Your task to perform on an android device: Open Amazon Image 0: 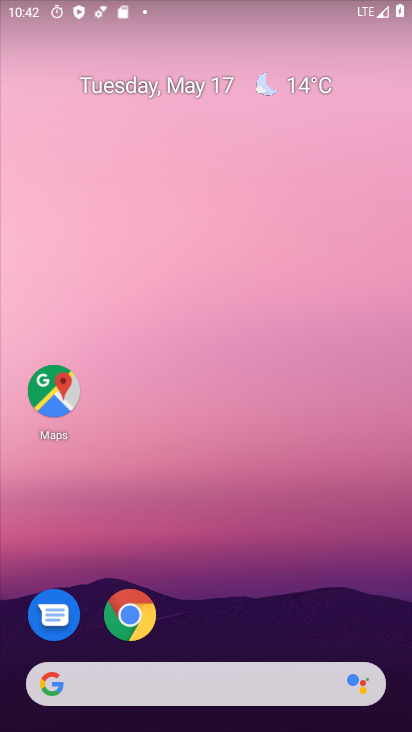
Step 0: click (134, 606)
Your task to perform on an android device: Open Amazon Image 1: 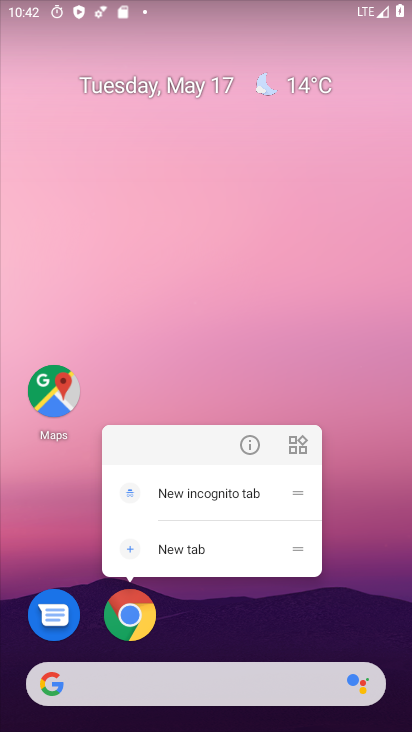
Step 1: click (134, 607)
Your task to perform on an android device: Open Amazon Image 2: 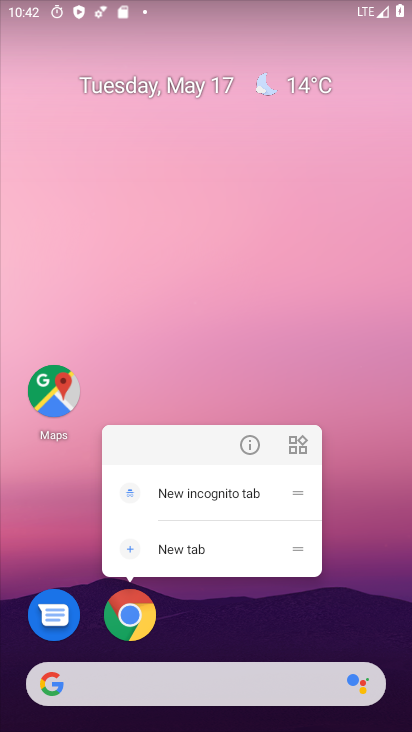
Step 2: click (123, 628)
Your task to perform on an android device: Open Amazon Image 3: 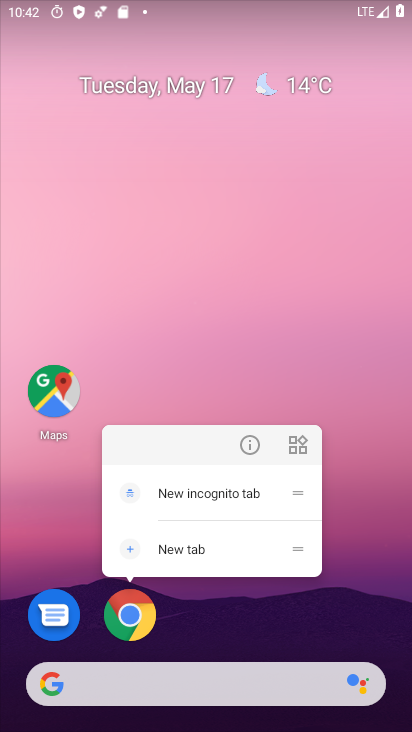
Step 3: click (147, 630)
Your task to perform on an android device: Open Amazon Image 4: 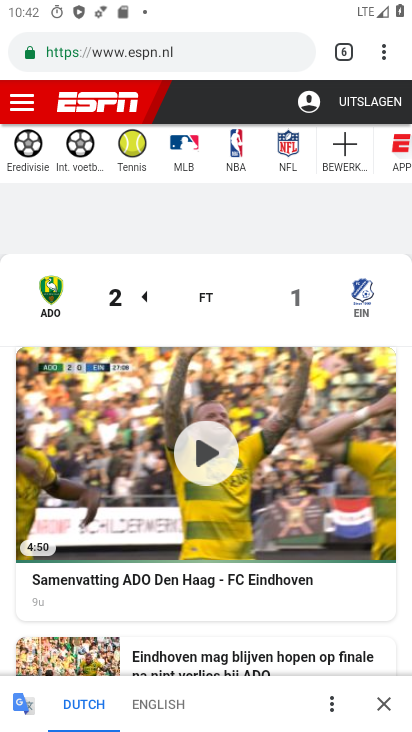
Step 4: drag from (384, 52) to (293, 110)
Your task to perform on an android device: Open Amazon Image 5: 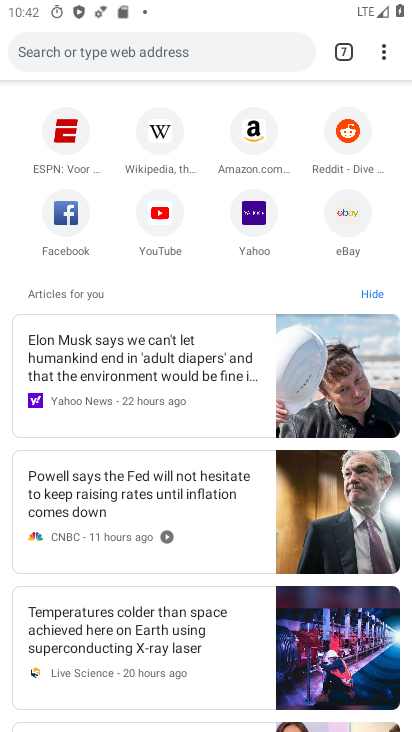
Step 5: click (250, 132)
Your task to perform on an android device: Open Amazon Image 6: 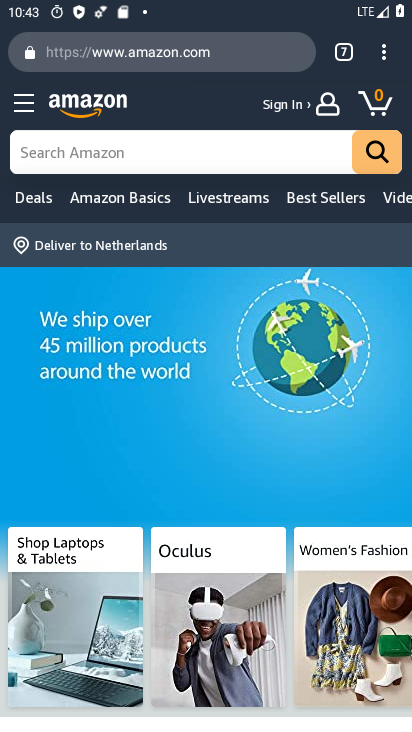
Step 6: task complete